Your task to perform on an android device: Search for good Greek restaurants Image 0: 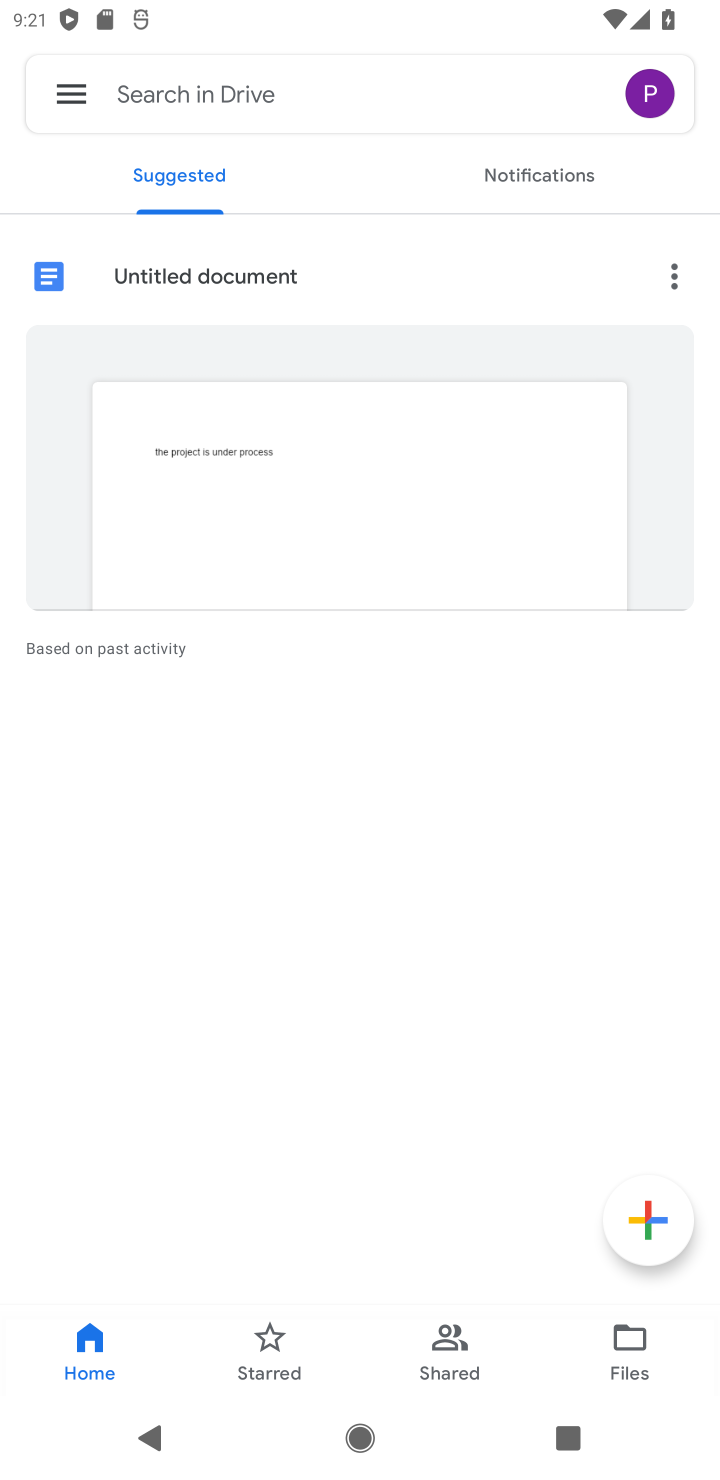
Step 0: press home button
Your task to perform on an android device: Search for good Greek restaurants Image 1: 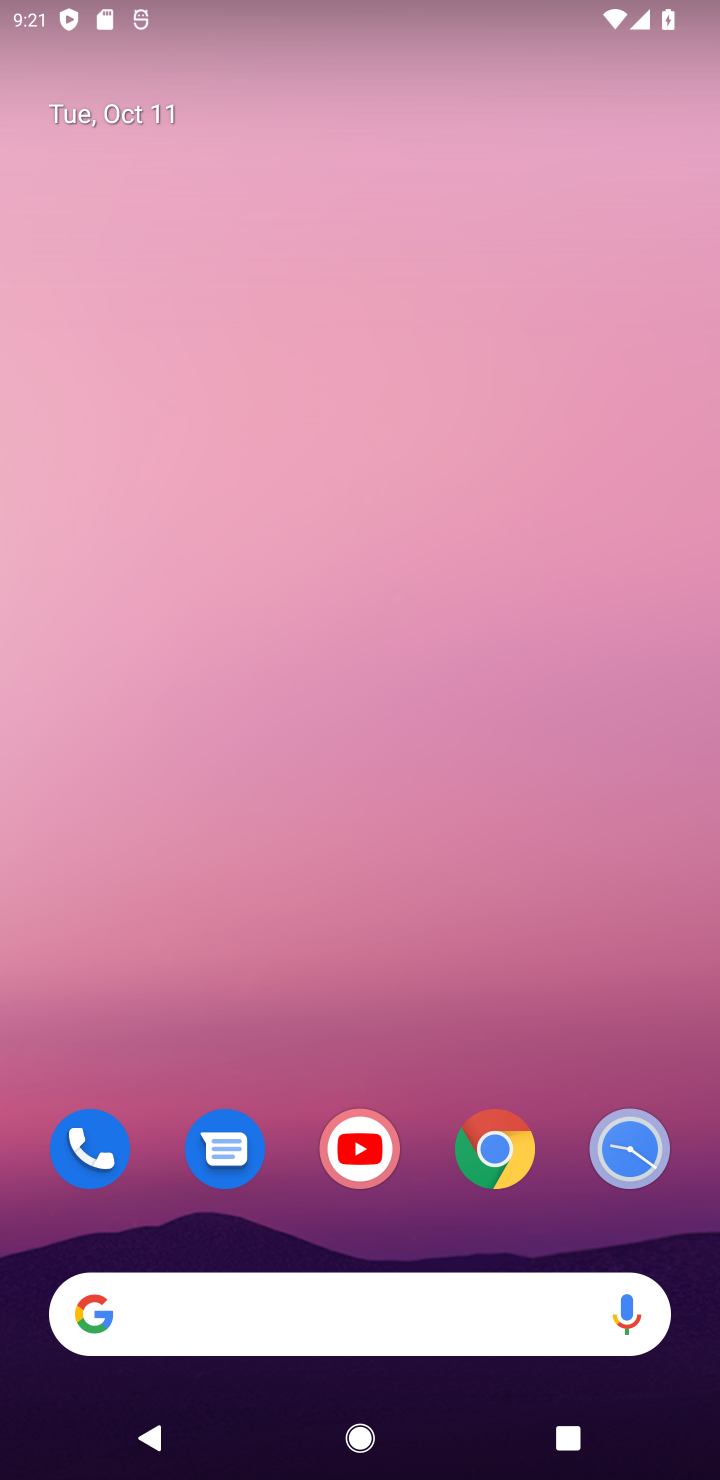
Step 1: drag from (344, 1204) to (462, 18)
Your task to perform on an android device: Search for good Greek restaurants Image 2: 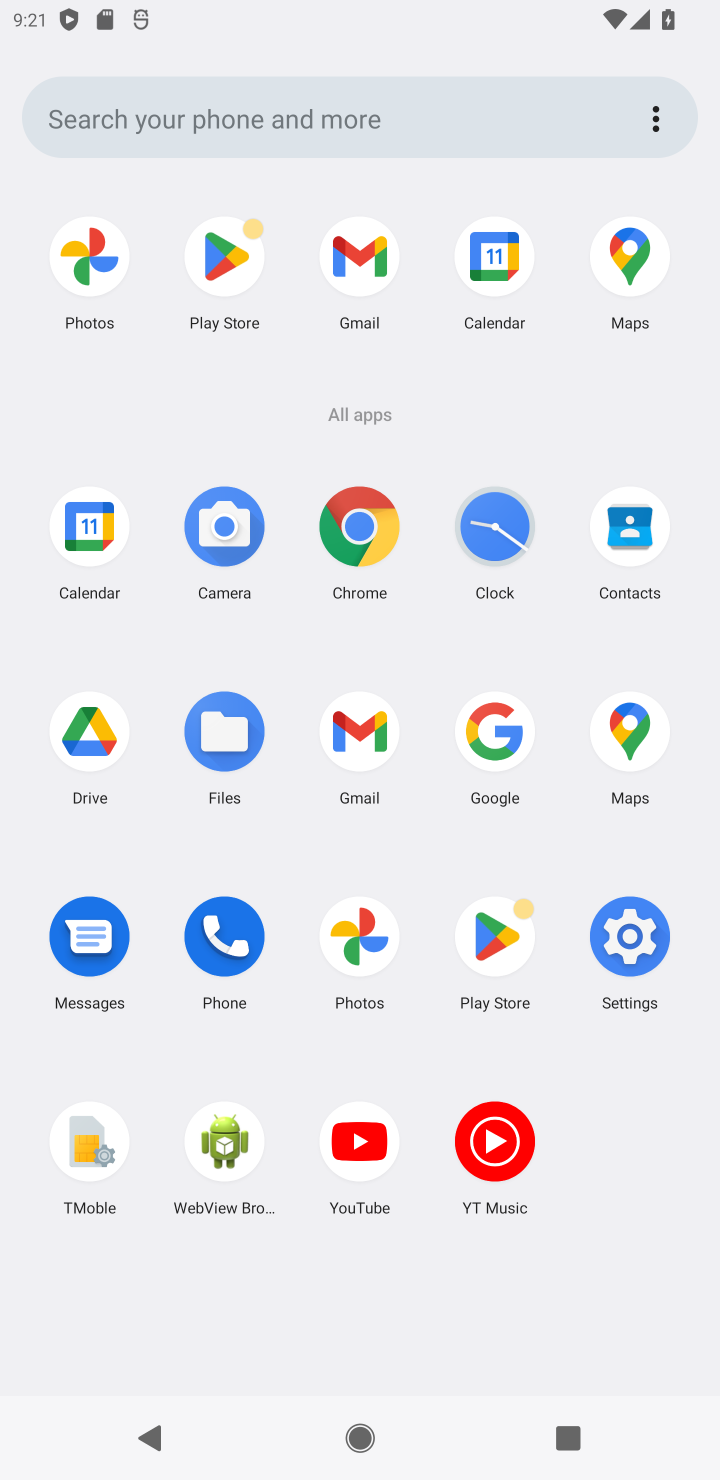
Step 2: click (368, 530)
Your task to perform on an android device: Search for good Greek restaurants Image 3: 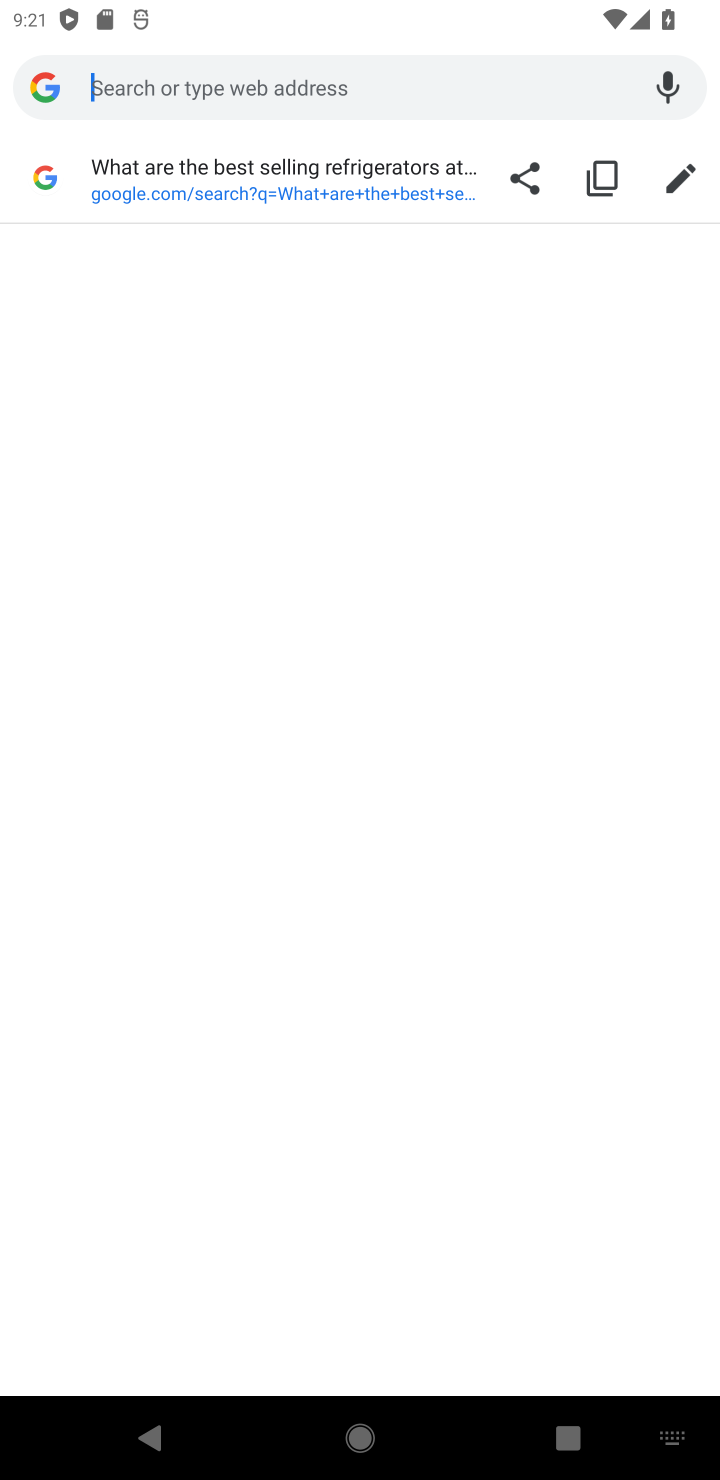
Step 3: type "Search for good Greek restaurants"
Your task to perform on an android device: Search for good Greek restaurants Image 4: 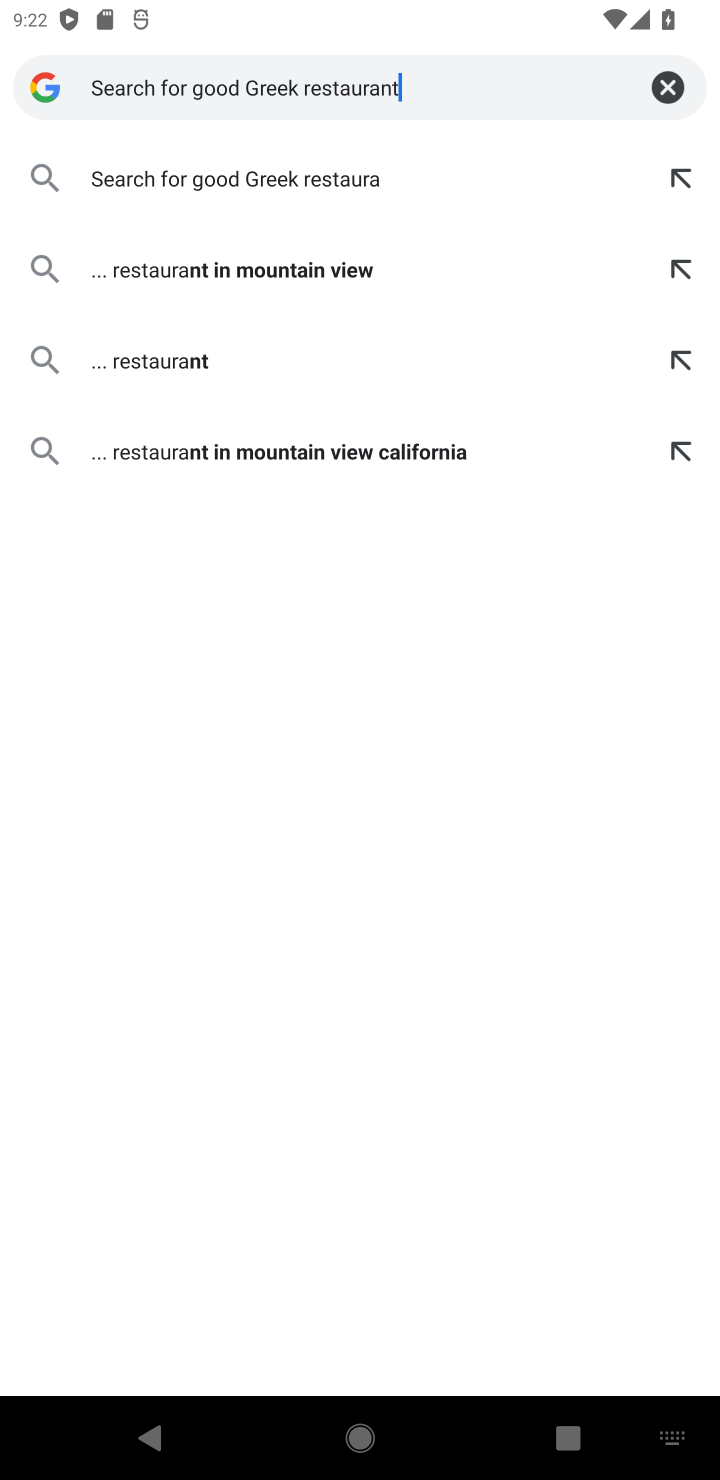
Step 4: press enter
Your task to perform on an android device: Search for good Greek restaurants Image 5: 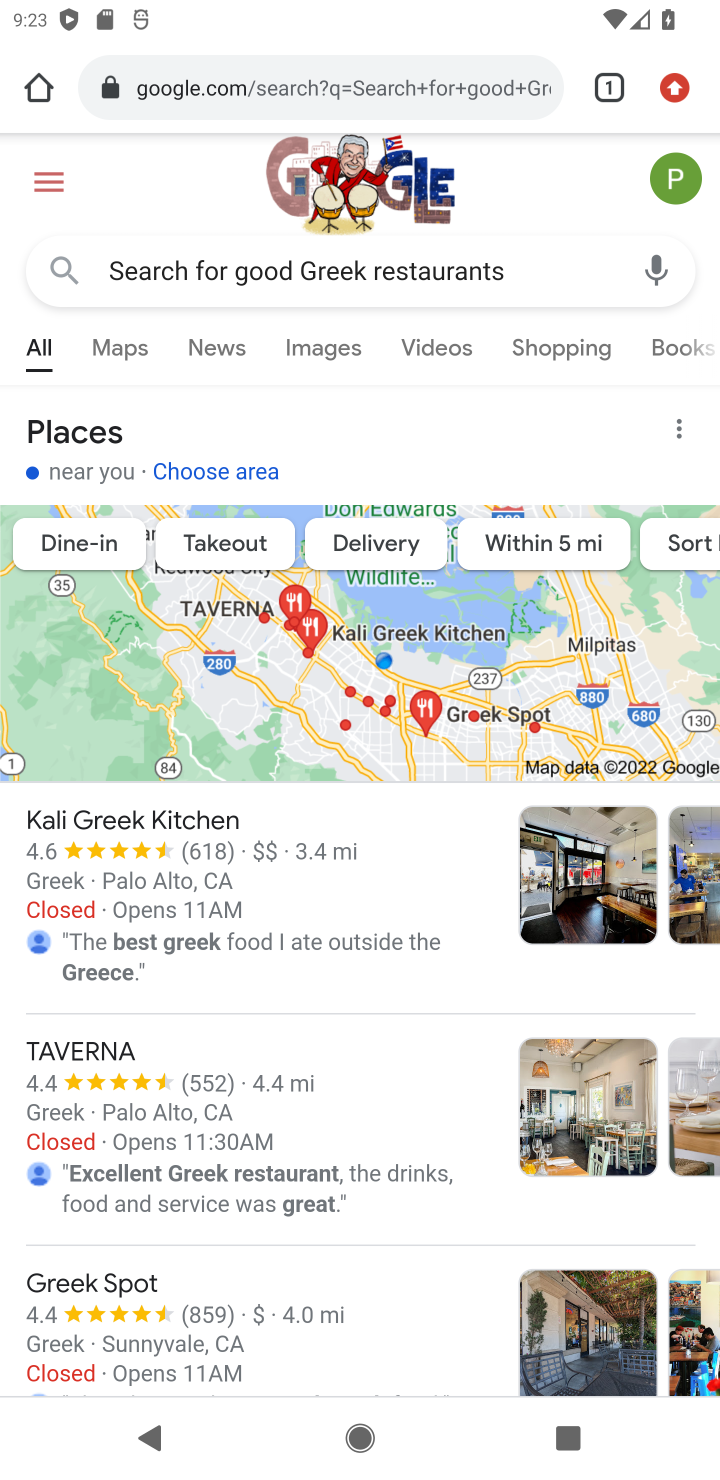
Step 5: task complete